Your task to perform on an android device: open a new tab in the chrome app Image 0: 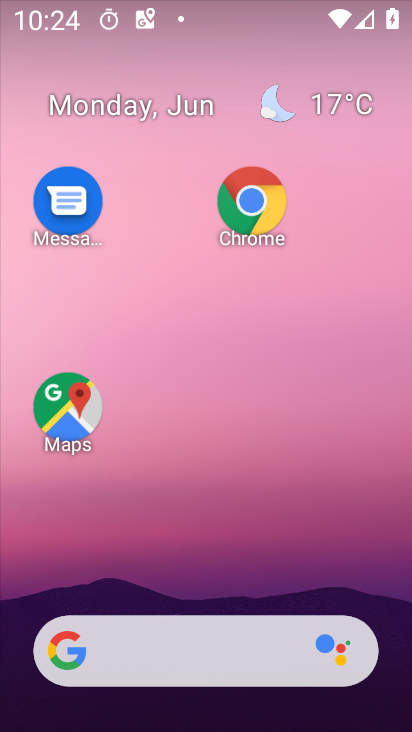
Step 0: click (270, 188)
Your task to perform on an android device: open a new tab in the chrome app Image 1: 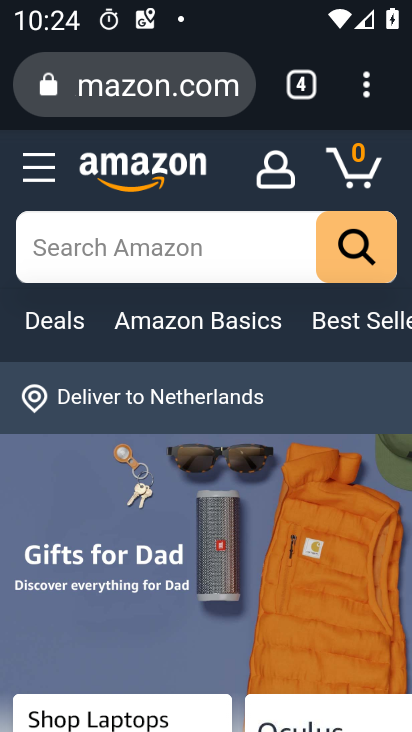
Step 1: click (370, 70)
Your task to perform on an android device: open a new tab in the chrome app Image 2: 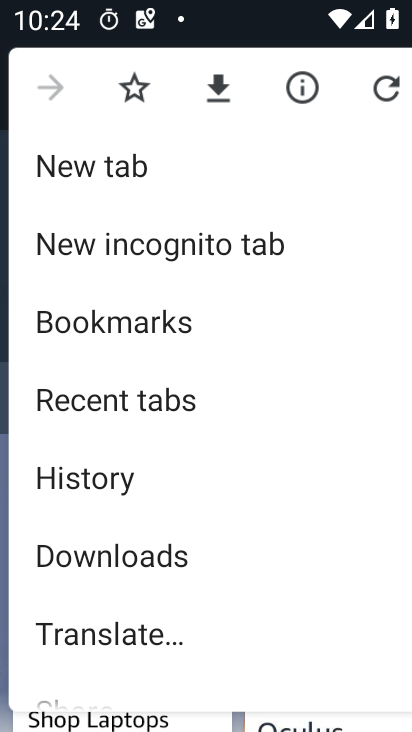
Step 2: click (78, 152)
Your task to perform on an android device: open a new tab in the chrome app Image 3: 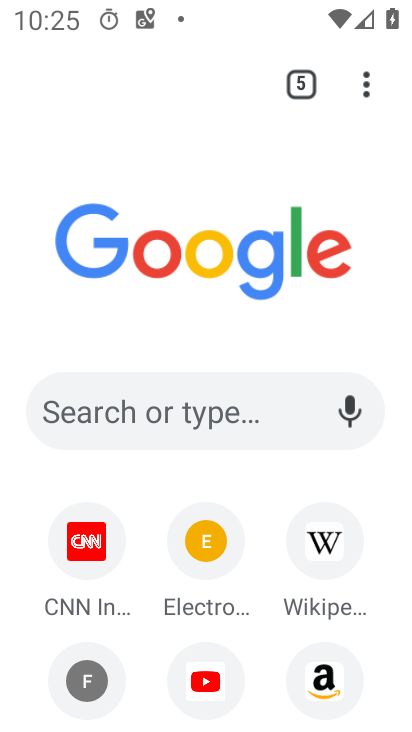
Step 3: click (299, 90)
Your task to perform on an android device: open a new tab in the chrome app Image 4: 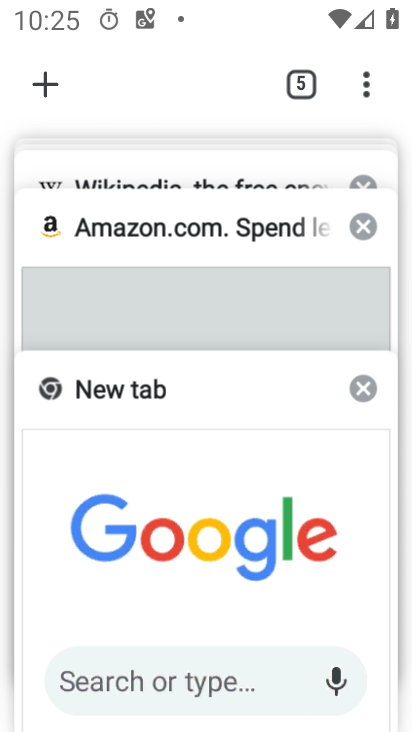
Step 4: click (56, 91)
Your task to perform on an android device: open a new tab in the chrome app Image 5: 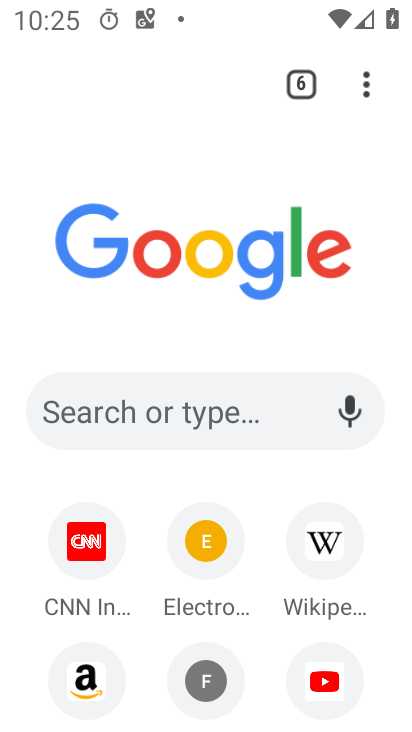
Step 5: task complete